Your task to perform on an android device: change keyboard looks Image 0: 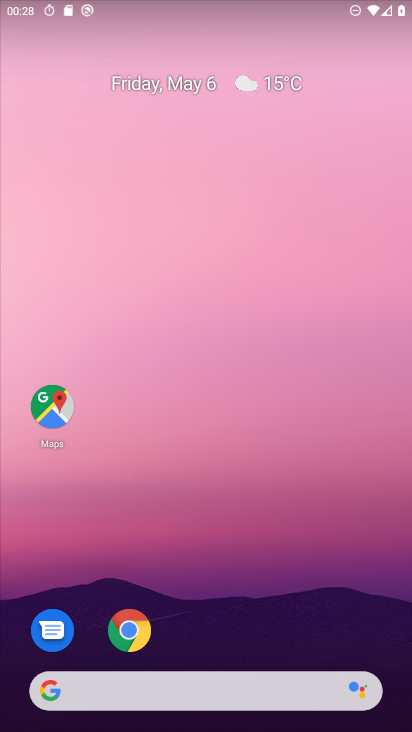
Step 0: drag from (309, 553) to (251, 0)
Your task to perform on an android device: change keyboard looks Image 1: 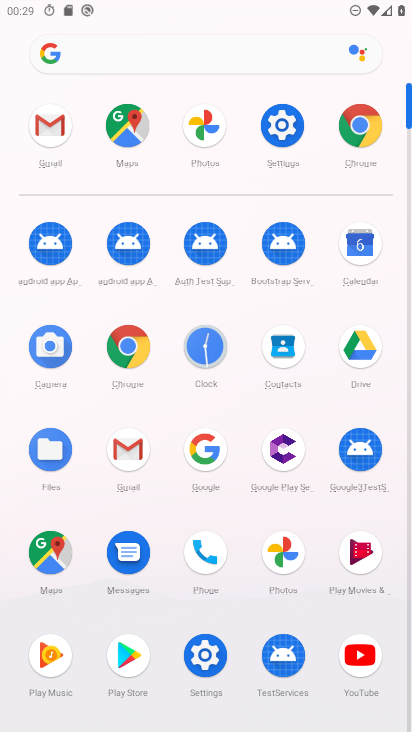
Step 1: click (288, 128)
Your task to perform on an android device: change keyboard looks Image 2: 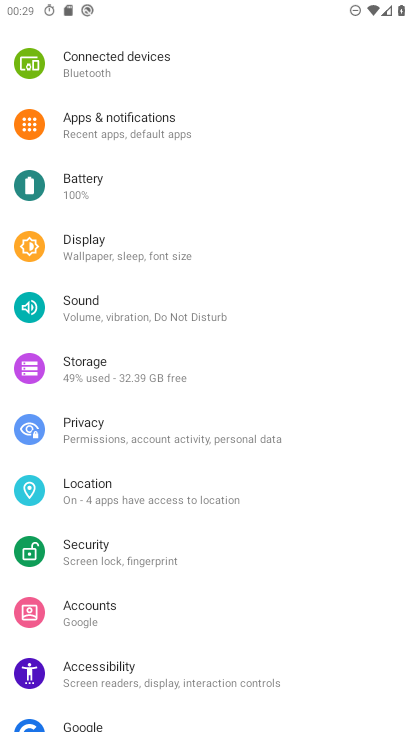
Step 2: drag from (183, 629) to (287, 0)
Your task to perform on an android device: change keyboard looks Image 3: 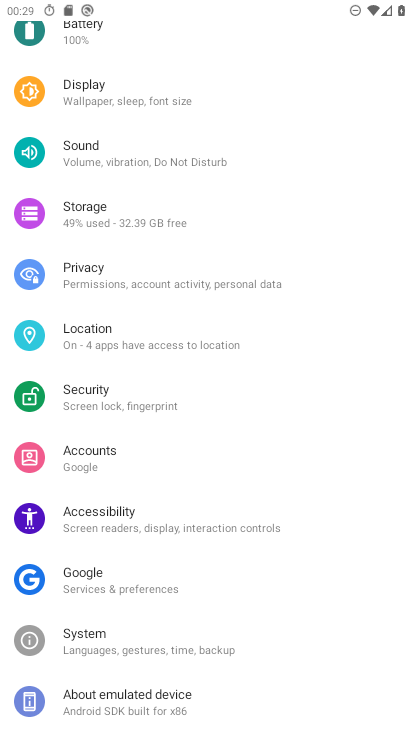
Step 3: drag from (172, 293) to (185, 632)
Your task to perform on an android device: change keyboard looks Image 4: 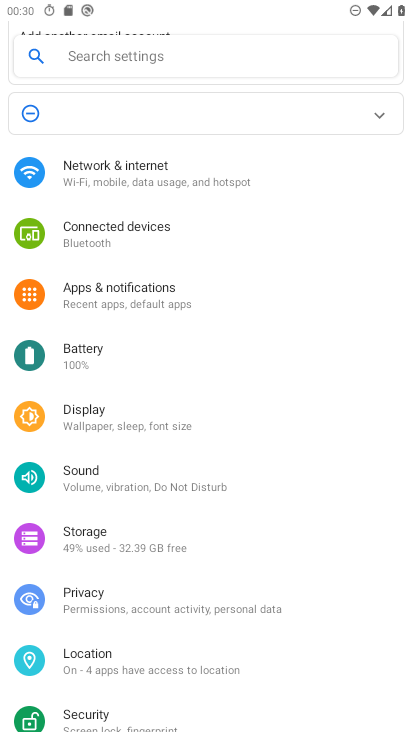
Step 4: drag from (186, 582) to (246, 24)
Your task to perform on an android device: change keyboard looks Image 5: 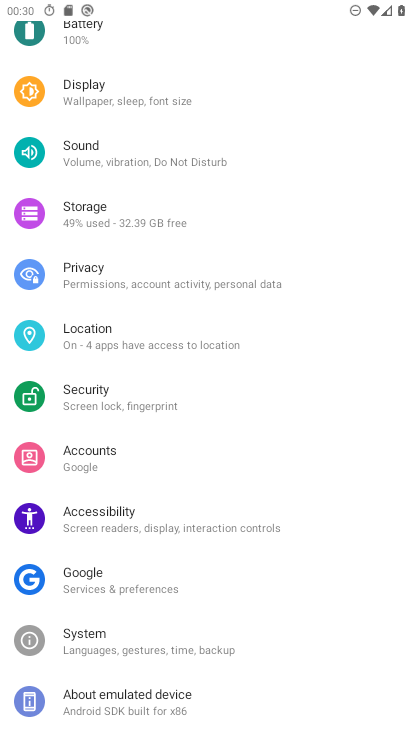
Step 5: drag from (218, 599) to (289, 152)
Your task to perform on an android device: change keyboard looks Image 6: 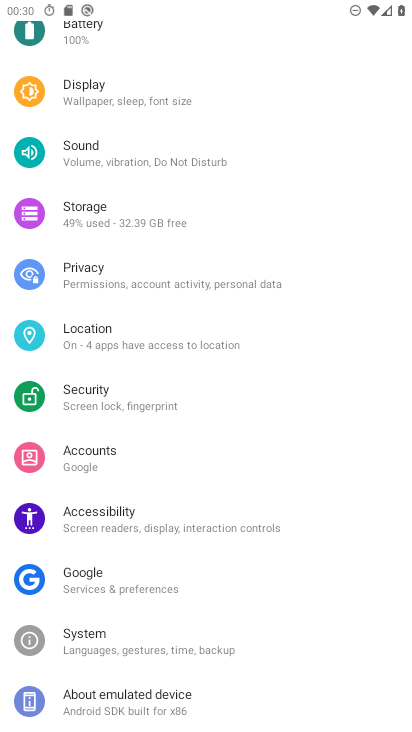
Step 6: drag from (243, 114) to (225, 442)
Your task to perform on an android device: change keyboard looks Image 7: 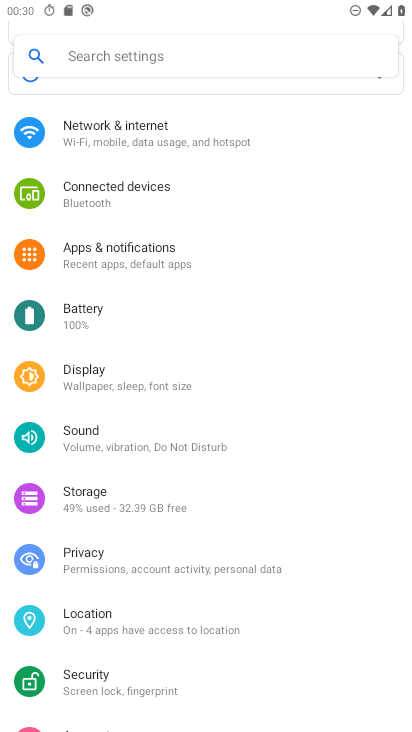
Step 7: drag from (201, 258) to (381, 3)
Your task to perform on an android device: change keyboard looks Image 8: 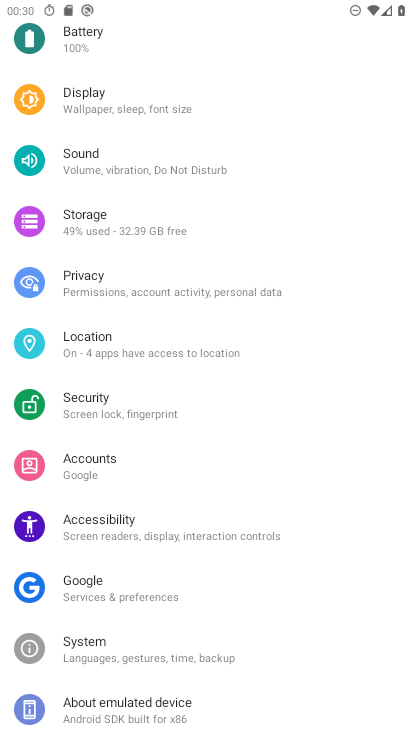
Step 8: drag from (257, 96) to (328, 26)
Your task to perform on an android device: change keyboard looks Image 9: 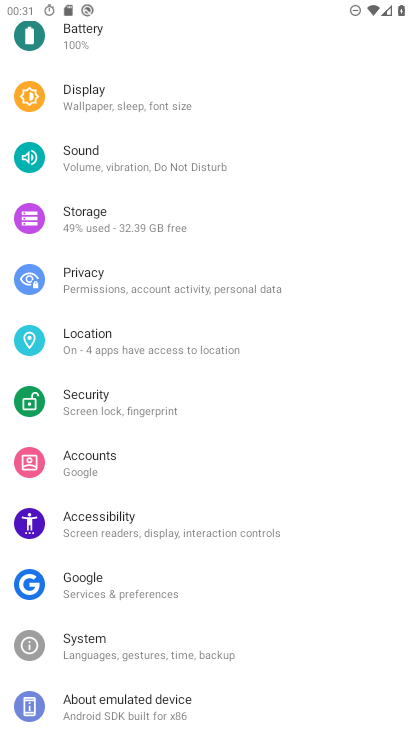
Step 9: click (127, 522)
Your task to perform on an android device: change keyboard looks Image 10: 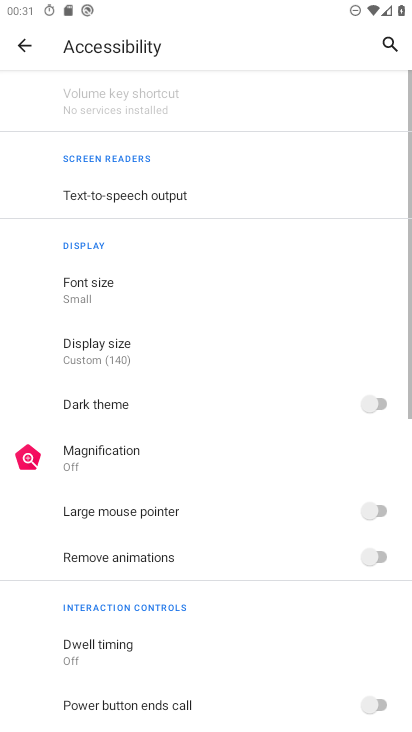
Step 10: click (17, 45)
Your task to perform on an android device: change keyboard looks Image 11: 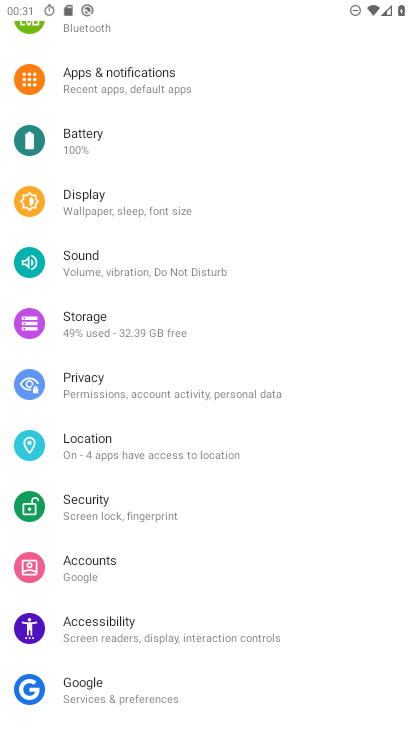
Step 11: drag from (127, 667) to (233, 32)
Your task to perform on an android device: change keyboard looks Image 12: 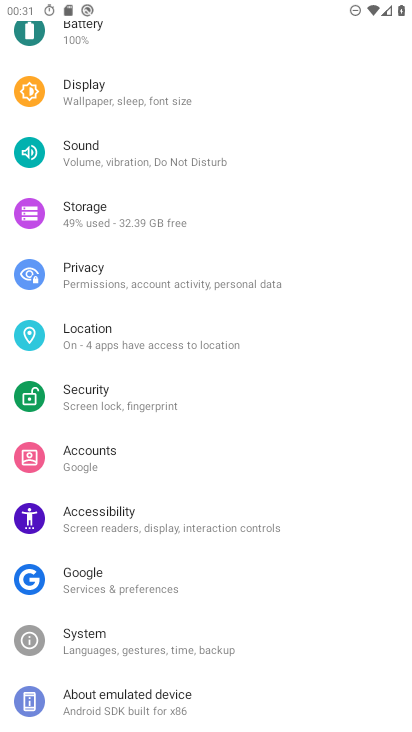
Step 12: click (105, 642)
Your task to perform on an android device: change keyboard looks Image 13: 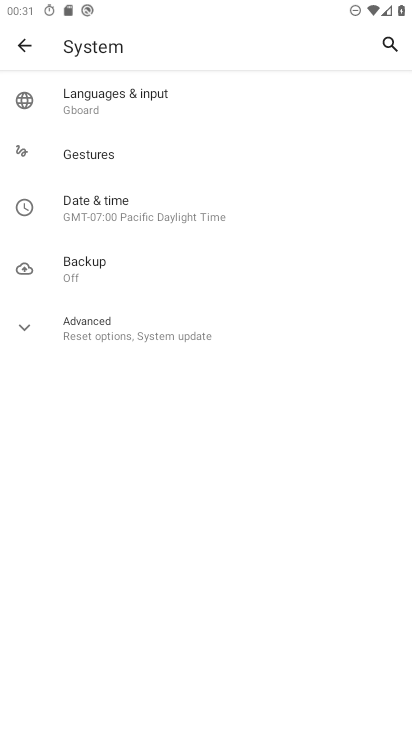
Step 13: click (140, 105)
Your task to perform on an android device: change keyboard looks Image 14: 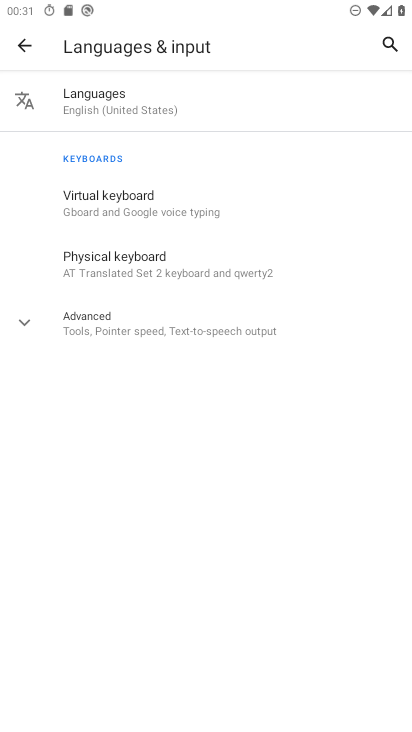
Step 14: click (126, 198)
Your task to perform on an android device: change keyboard looks Image 15: 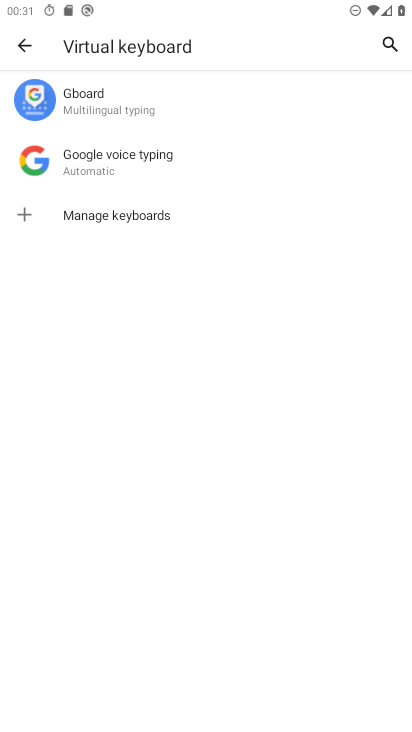
Step 15: click (140, 102)
Your task to perform on an android device: change keyboard looks Image 16: 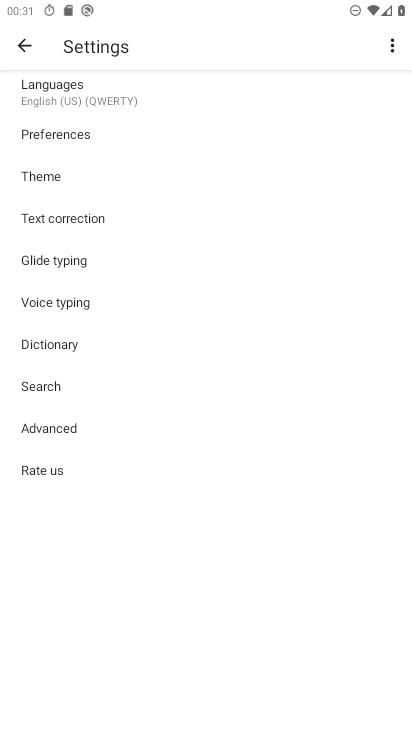
Step 16: click (49, 169)
Your task to perform on an android device: change keyboard looks Image 17: 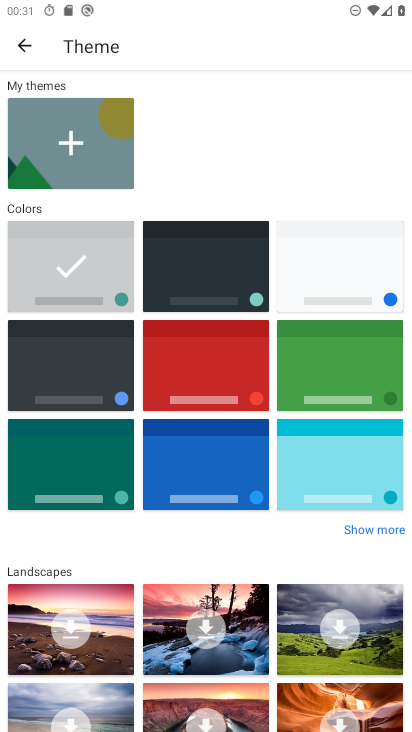
Step 17: click (341, 278)
Your task to perform on an android device: change keyboard looks Image 18: 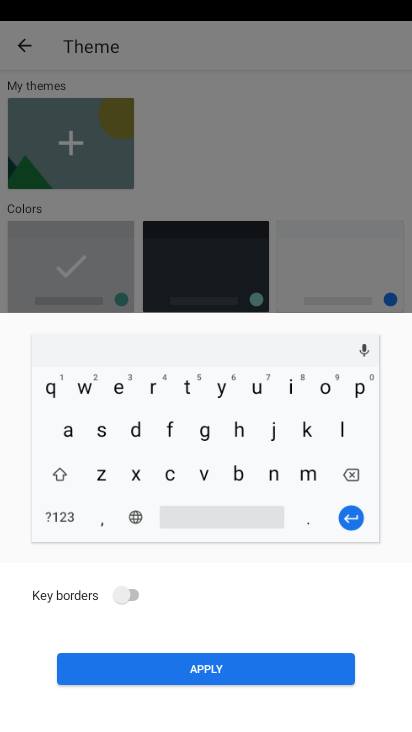
Step 18: click (125, 651)
Your task to perform on an android device: change keyboard looks Image 19: 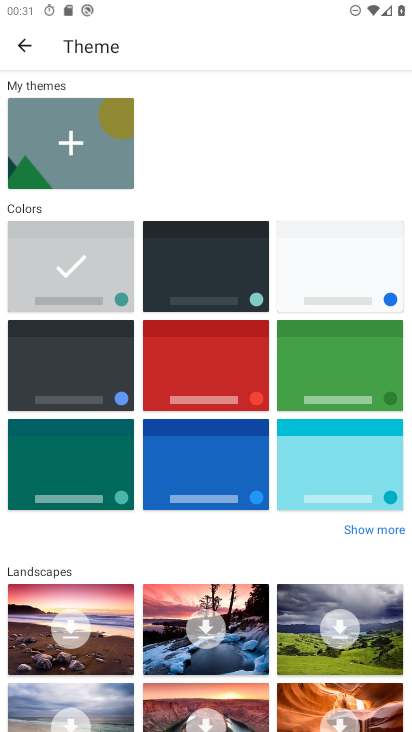
Step 19: click (136, 663)
Your task to perform on an android device: change keyboard looks Image 20: 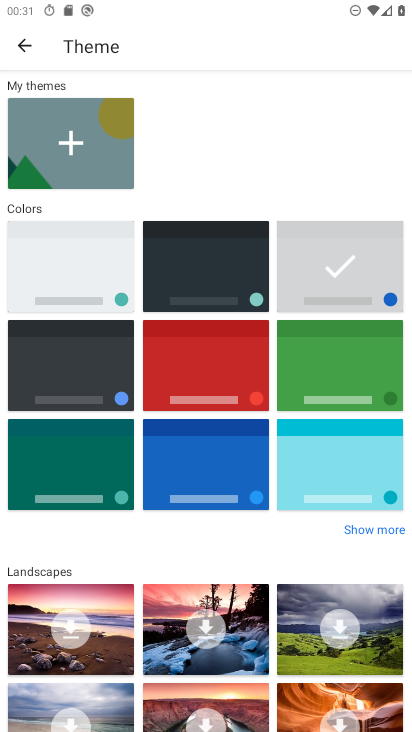
Step 20: task complete